Your task to perform on an android device: clear history in the chrome app Image 0: 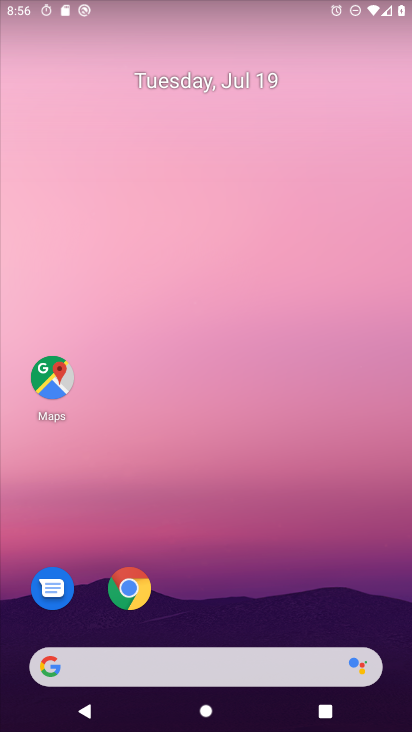
Step 0: drag from (218, 600) to (250, 247)
Your task to perform on an android device: clear history in the chrome app Image 1: 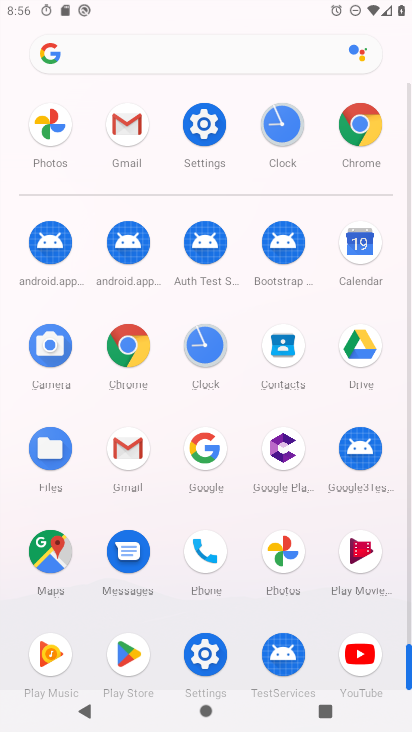
Step 1: click (124, 360)
Your task to perform on an android device: clear history in the chrome app Image 2: 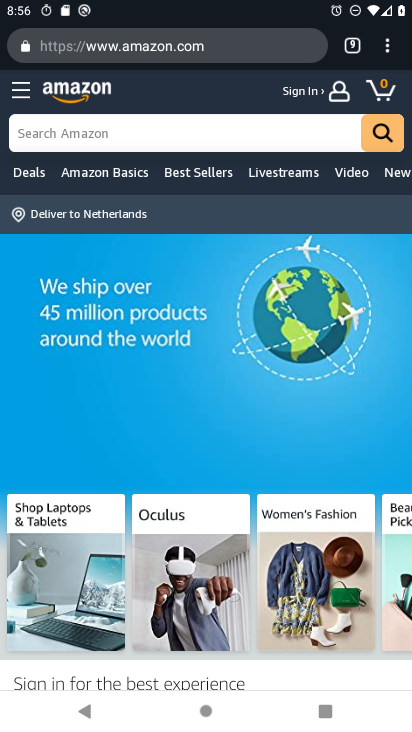
Step 2: click (390, 46)
Your task to perform on an android device: clear history in the chrome app Image 3: 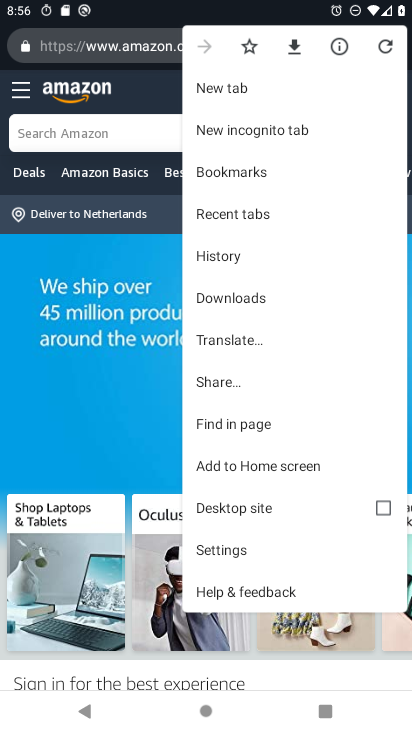
Step 3: click (257, 265)
Your task to perform on an android device: clear history in the chrome app Image 4: 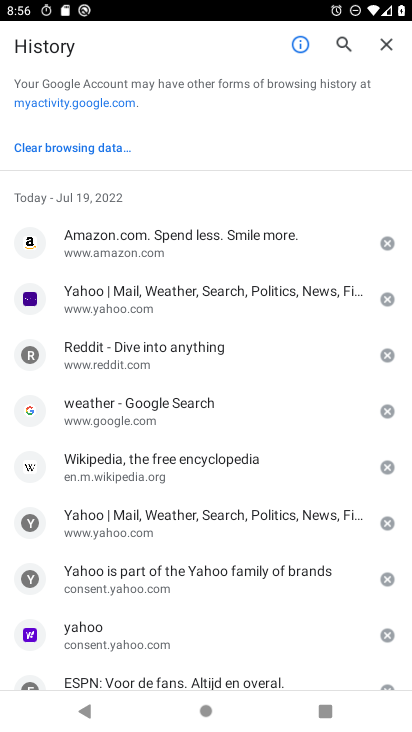
Step 4: click (105, 156)
Your task to perform on an android device: clear history in the chrome app Image 5: 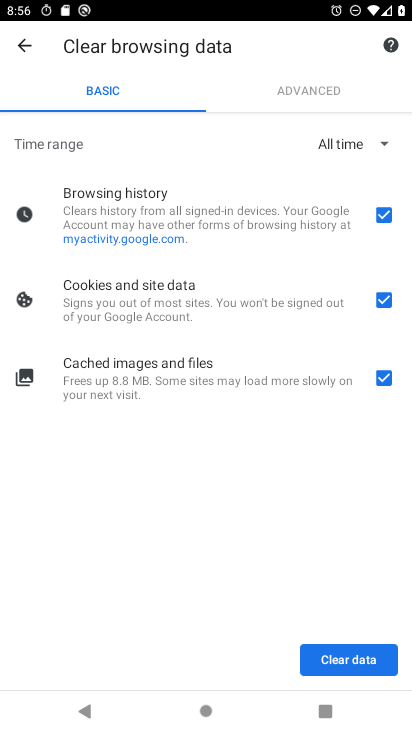
Step 5: click (348, 655)
Your task to perform on an android device: clear history in the chrome app Image 6: 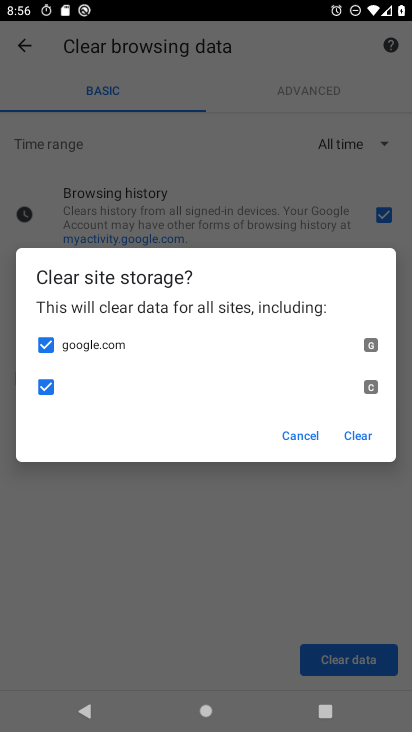
Step 6: click (357, 445)
Your task to perform on an android device: clear history in the chrome app Image 7: 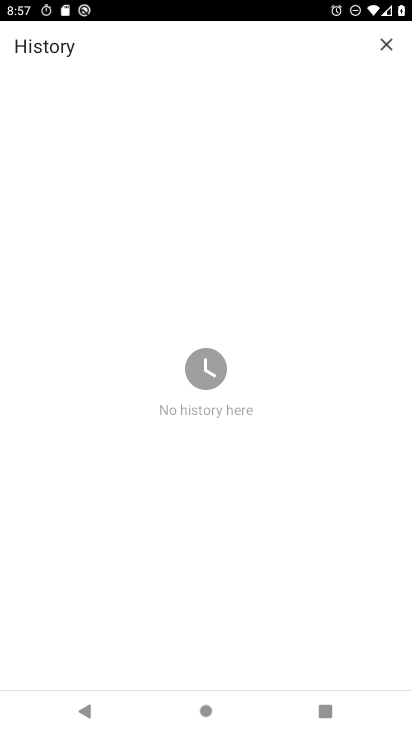
Step 7: task complete